Your task to perform on an android device: Go to Maps Image 0: 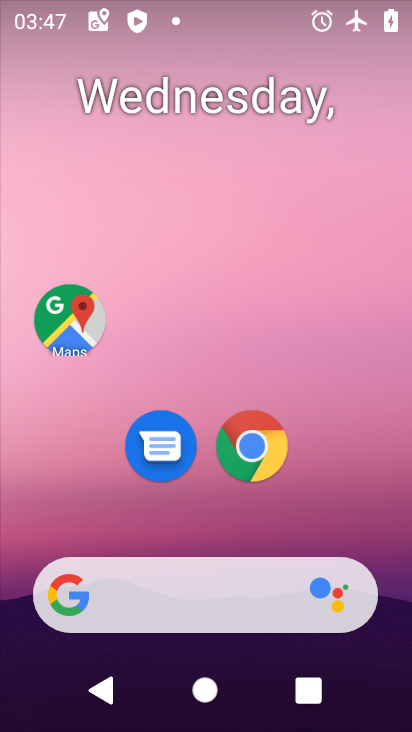
Step 0: click (96, 316)
Your task to perform on an android device: Go to Maps Image 1: 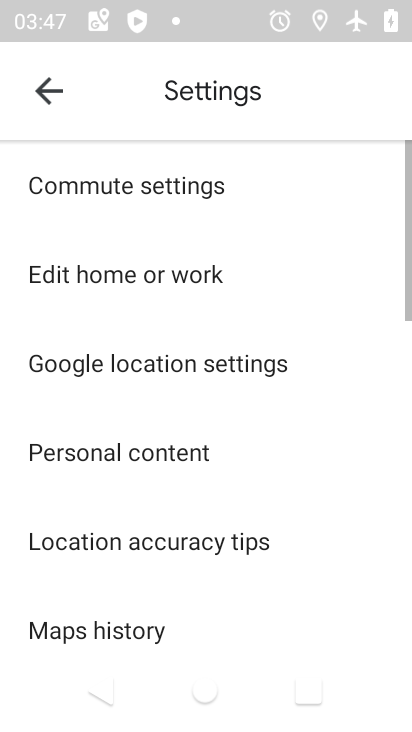
Step 1: click (49, 90)
Your task to perform on an android device: Go to Maps Image 2: 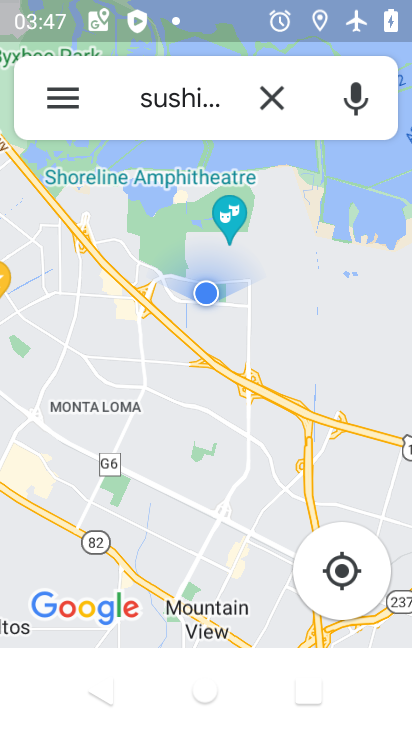
Step 2: task complete